Your task to perform on an android device: See recent photos Image 0: 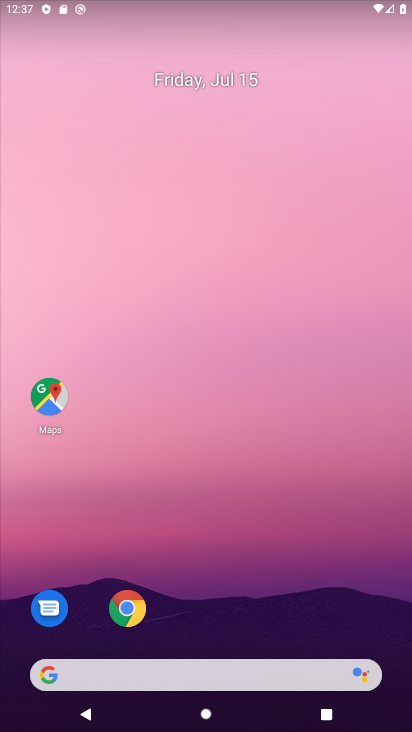
Step 0: drag from (181, 676) to (220, 158)
Your task to perform on an android device: See recent photos Image 1: 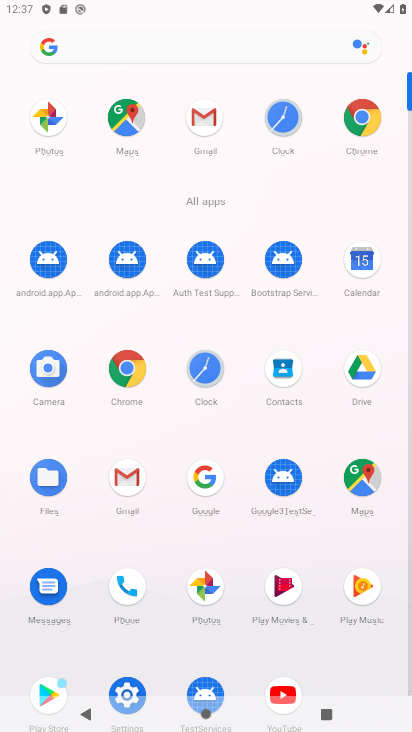
Step 1: click (206, 584)
Your task to perform on an android device: See recent photos Image 2: 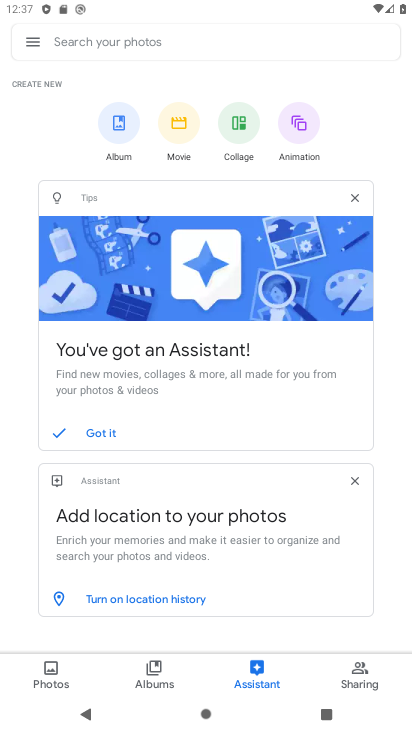
Step 2: click (55, 674)
Your task to perform on an android device: See recent photos Image 3: 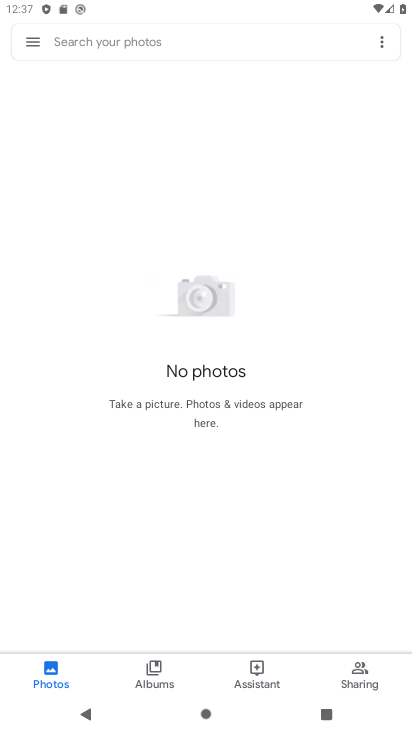
Step 3: task complete